Your task to perform on an android device: refresh tabs in the chrome app Image 0: 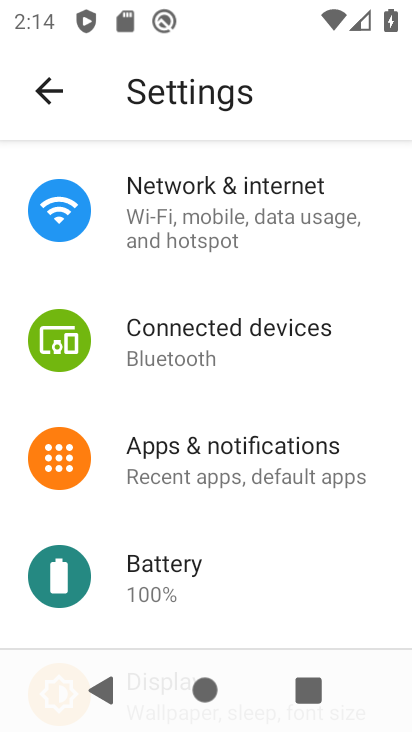
Step 0: press home button
Your task to perform on an android device: refresh tabs in the chrome app Image 1: 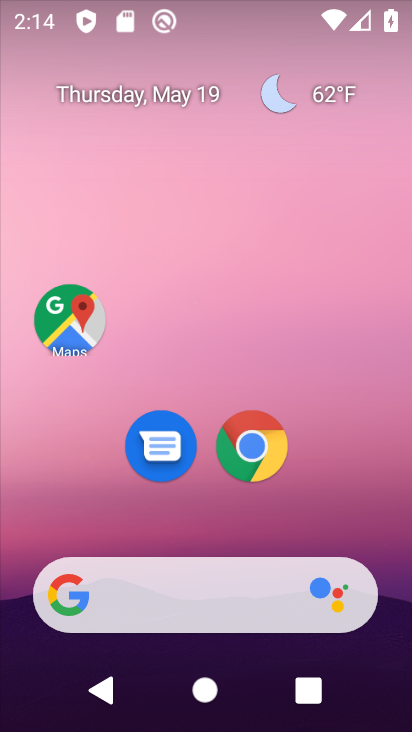
Step 1: click (247, 441)
Your task to perform on an android device: refresh tabs in the chrome app Image 2: 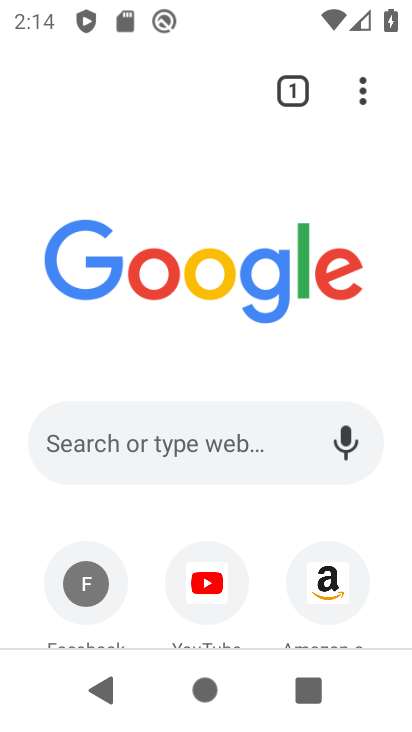
Step 2: click (356, 105)
Your task to perform on an android device: refresh tabs in the chrome app Image 3: 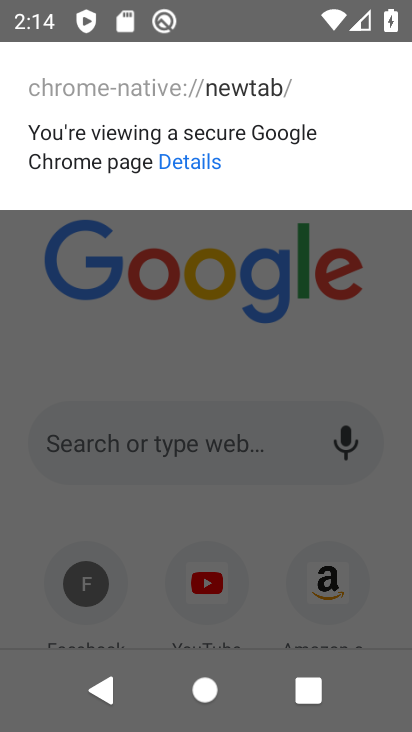
Step 3: click (317, 262)
Your task to perform on an android device: refresh tabs in the chrome app Image 4: 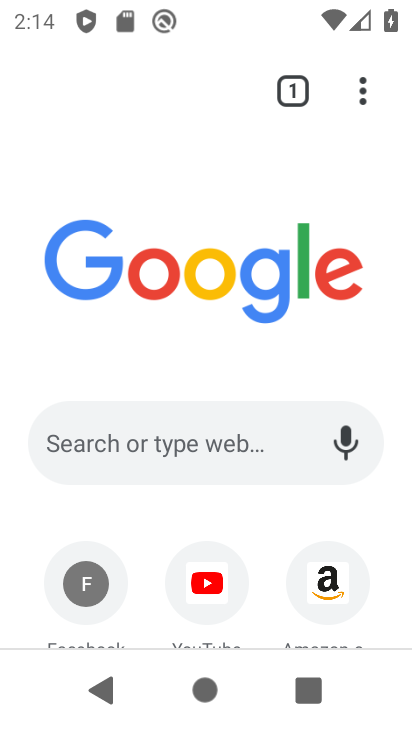
Step 4: click (363, 91)
Your task to perform on an android device: refresh tabs in the chrome app Image 5: 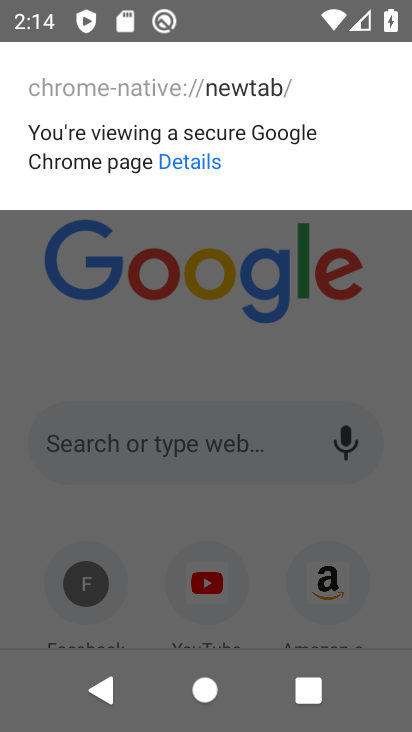
Step 5: click (321, 255)
Your task to perform on an android device: refresh tabs in the chrome app Image 6: 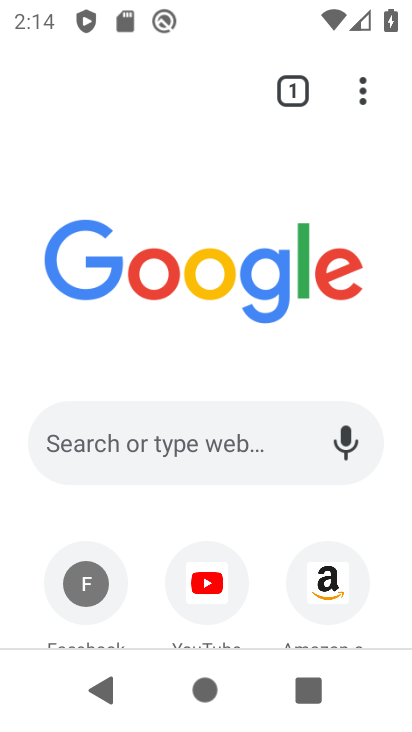
Step 6: click (363, 84)
Your task to perform on an android device: refresh tabs in the chrome app Image 7: 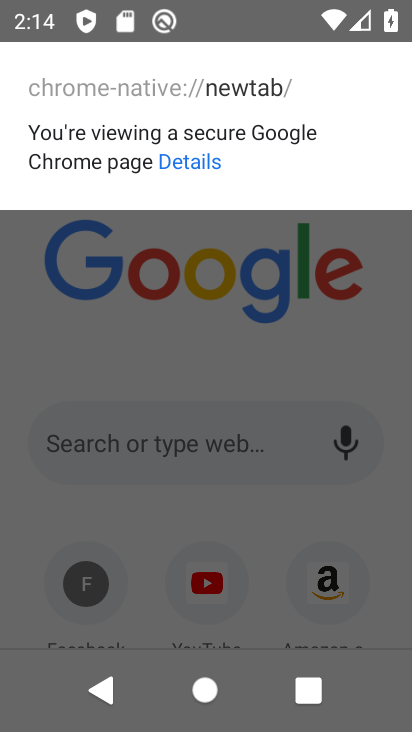
Step 7: click (363, 84)
Your task to perform on an android device: refresh tabs in the chrome app Image 8: 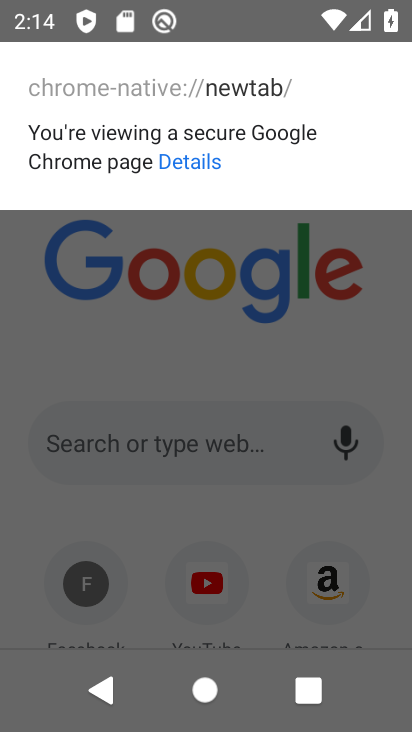
Step 8: press back button
Your task to perform on an android device: refresh tabs in the chrome app Image 9: 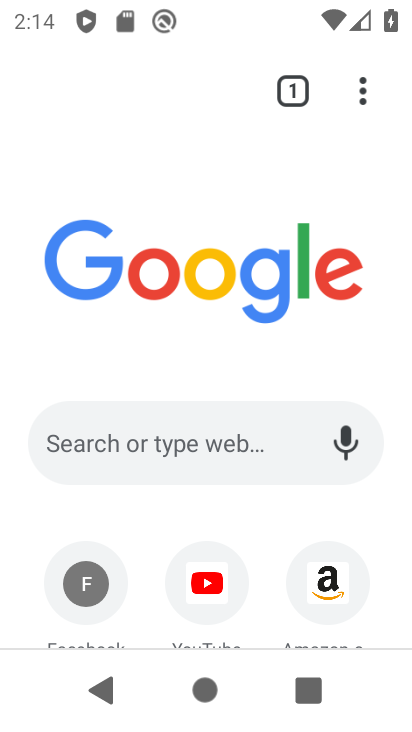
Step 9: press back button
Your task to perform on an android device: refresh tabs in the chrome app Image 10: 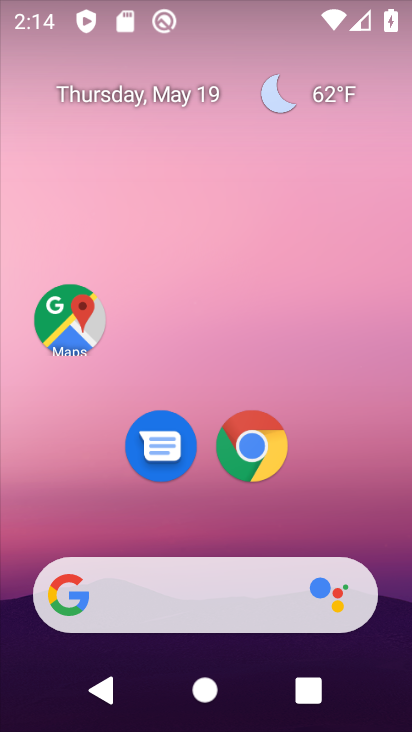
Step 10: click (244, 431)
Your task to perform on an android device: refresh tabs in the chrome app Image 11: 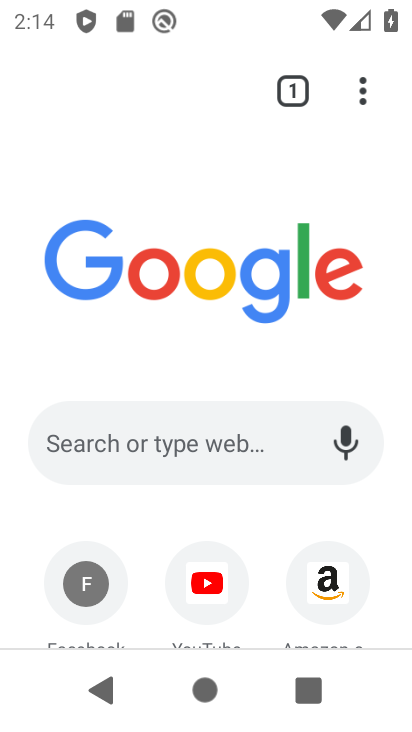
Step 11: click (361, 91)
Your task to perform on an android device: refresh tabs in the chrome app Image 12: 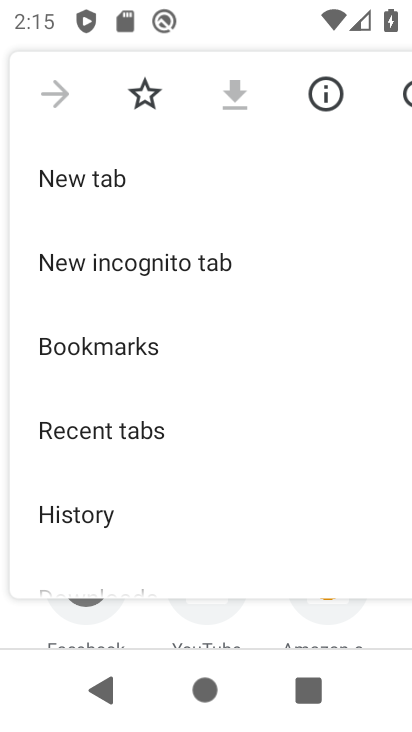
Step 12: click (408, 90)
Your task to perform on an android device: refresh tabs in the chrome app Image 13: 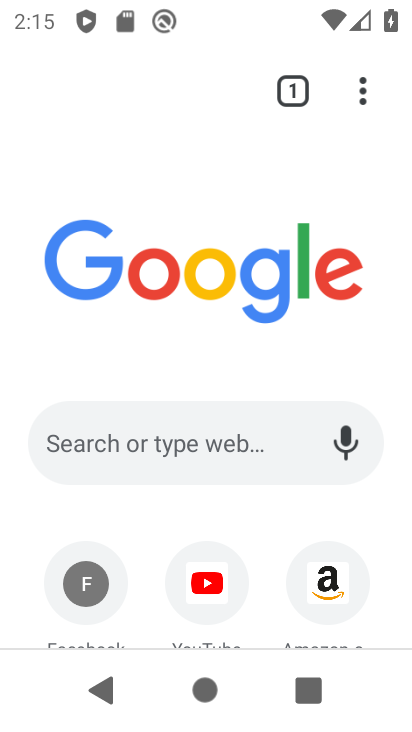
Step 13: task complete